Your task to perform on an android device: turn on the 12-hour format for clock Image 0: 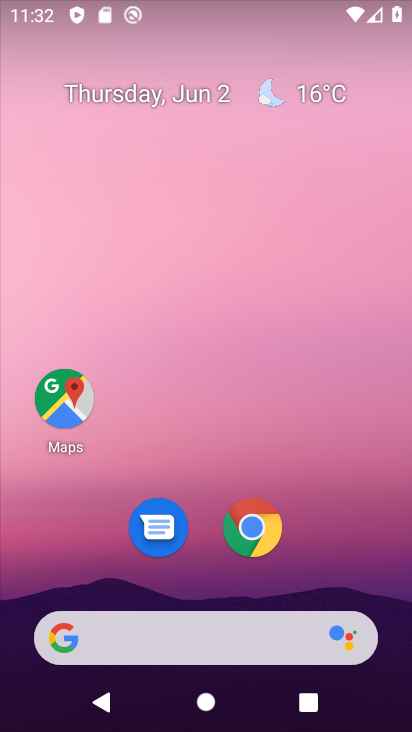
Step 0: drag from (197, 636) to (166, 55)
Your task to perform on an android device: turn on the 12-hour format for clock Image 1: 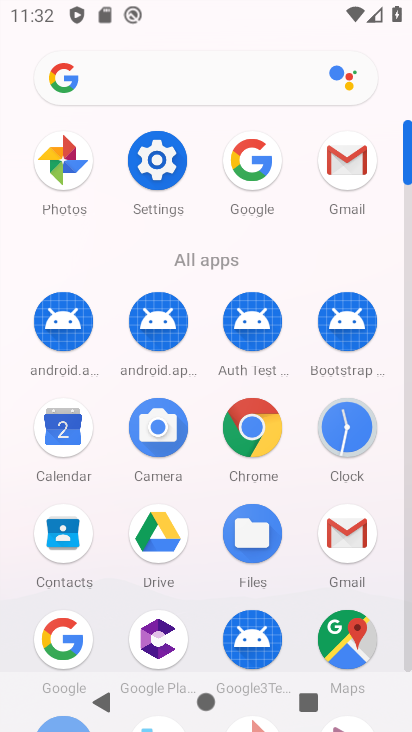
Step 1: click (166, 158)
Your task to perform on an android device: turn on the 12-hour format for clock Image 2: 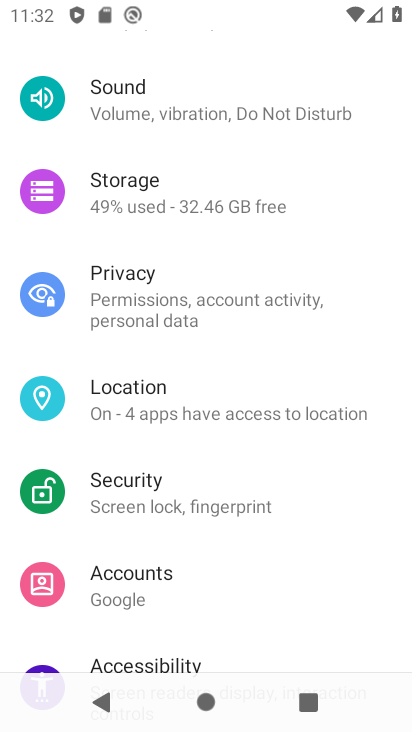
Step 2: drag from (219, 587) to (162, 132)
Your task to perform on an android device: turn on the 12-hour format for clock Image 3: 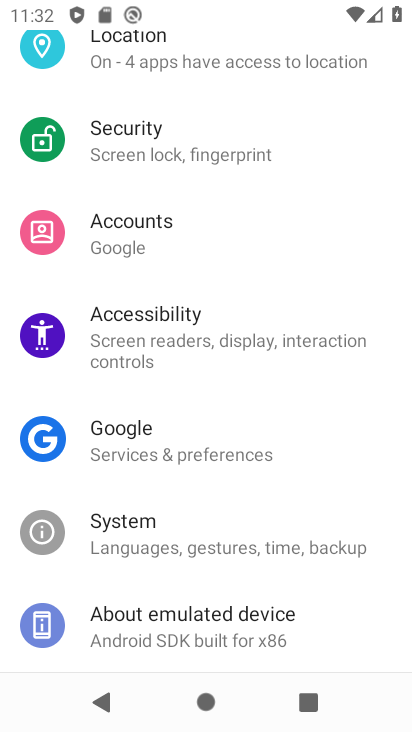
Step 3: click (207, 551)
Your task to perform on an android device: turn on the 12-hour format for clock Image 4: 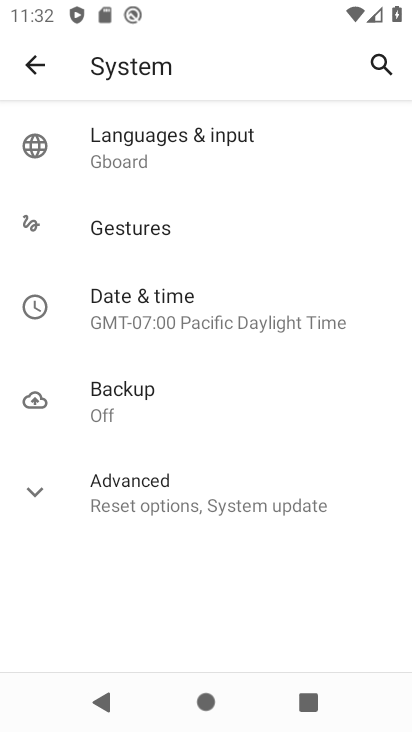
Step 4: click (137, 291)
Your task to perform on an android device: turn on the 12-hour format for clock Image 5: 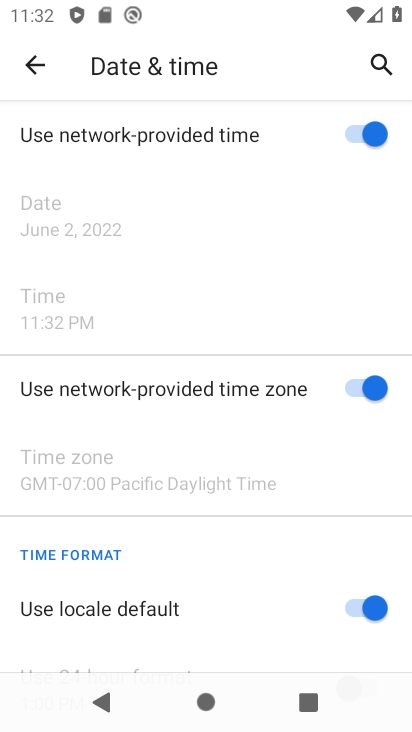
Step 5: task complete